Your task to perform on an android device: see sites visited before in the chrome app Image 0: 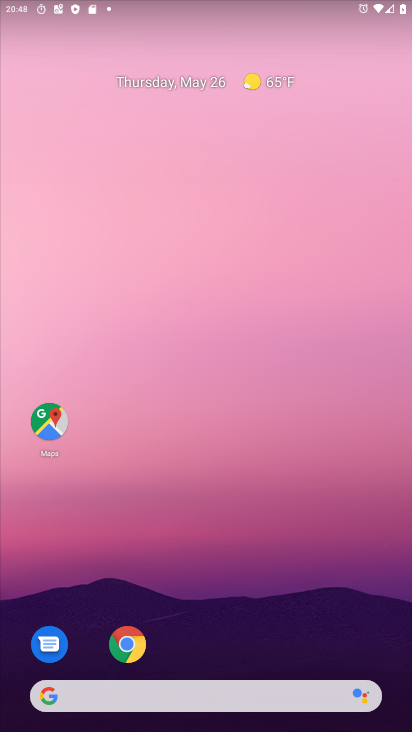
Step 0: drag from (201, 490) to (211, 89)
Your task to perform on an android device: see sites visited before in the chrome app Image 1: 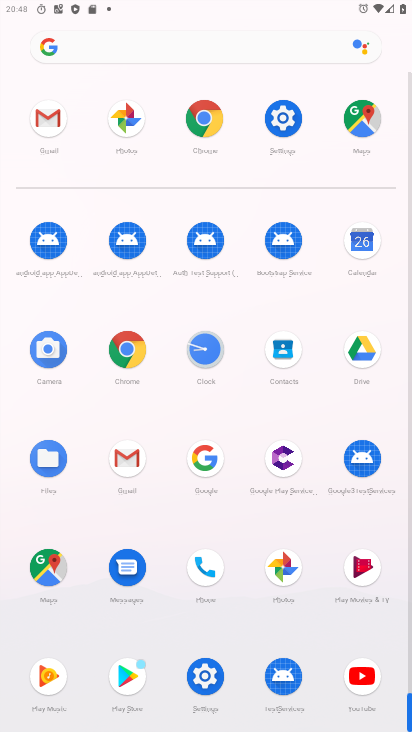
Step 1: click (122, 347)
Your task to perform on an android device: see sites visited before in the chrome app Image 2: 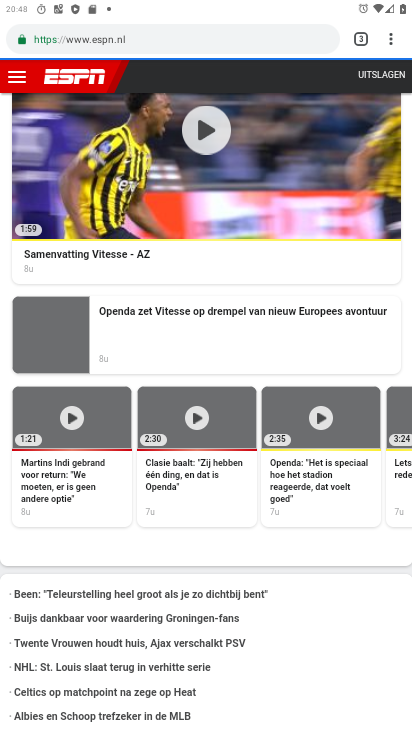
Step 2: task complete